Your task to perform on an android device: open device folders in google photos Image 0: 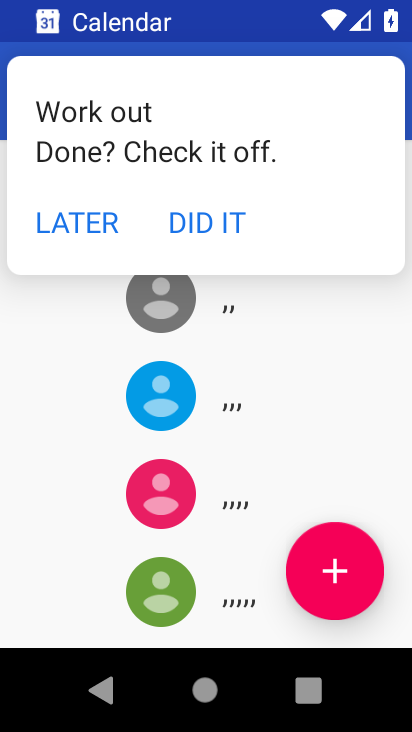
Step 0: press home button
Your task to perform on an android device: open device folders in google photos Image 1: 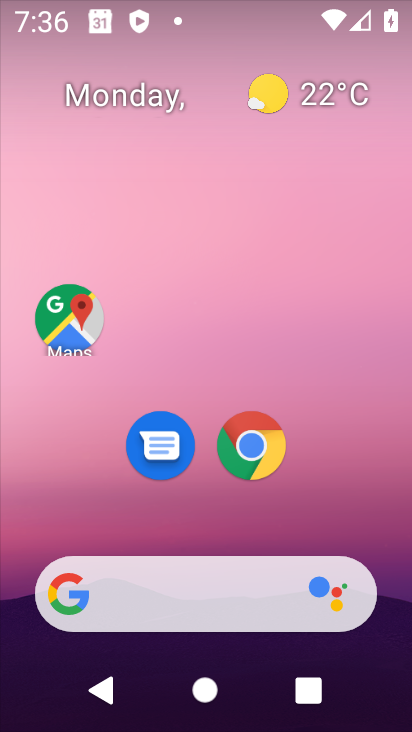
Step 1: drag from (321, 512) to (279, 177)
Your task to perform on an android device: open device folders in google photos Image 2: 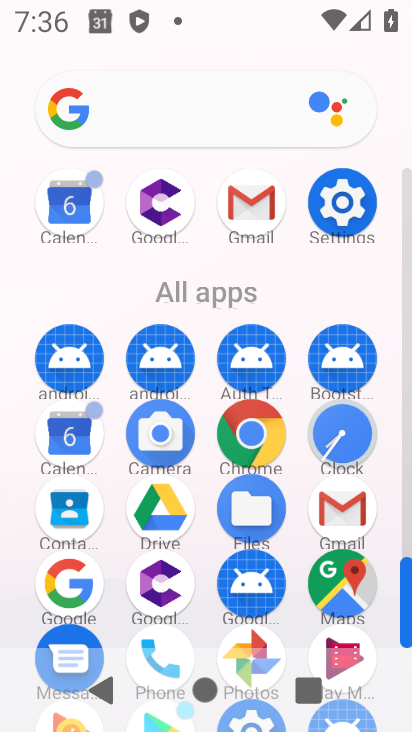
Step 2: drag from (117, 616) to (169, 259)
Your task to perform on an android device: open device folders in google photos Image 3: 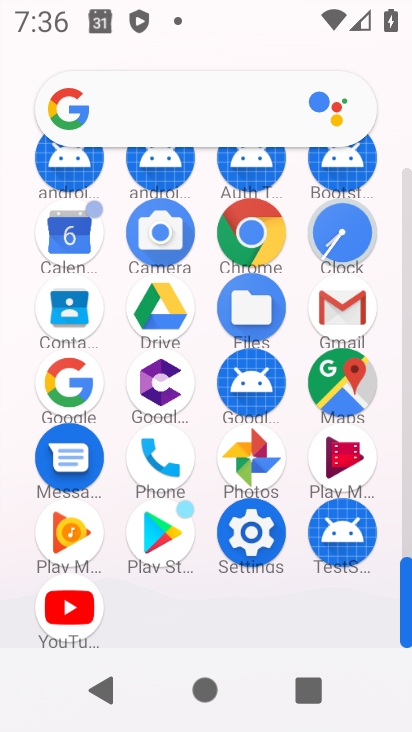
Step 3: click (245, 456)
Your task to perform on an android device: open device folders in google photos Image 4: 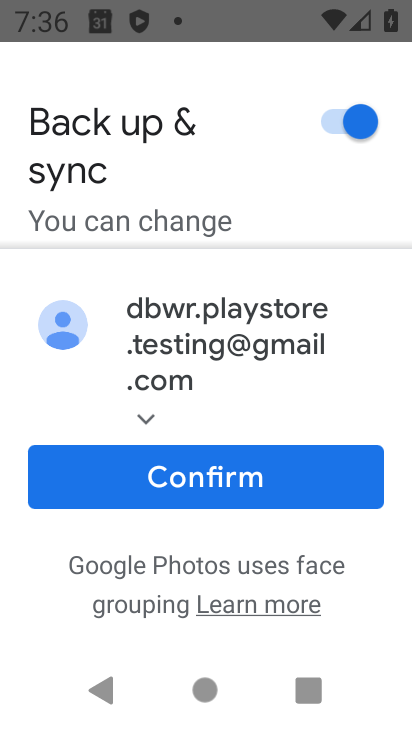
Step 4: click (224, 478)
Your task to perform on an android device: open device folders in google photos Image 5: 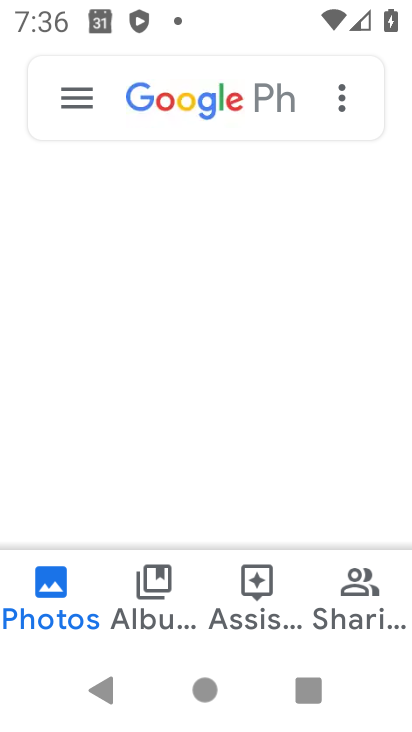
Step 5: click (48, 90)
Your task to perform on an android device: open device folders in google photos Image 6: 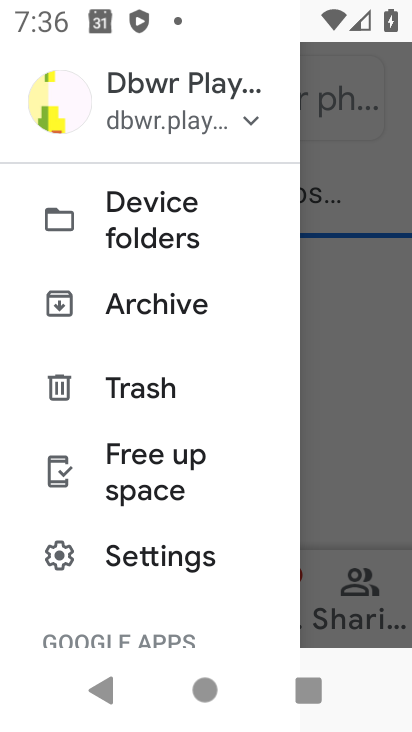
Step 6: click (147, 221)
Your task to perform on an android device: open device folders in google photos Image 7: 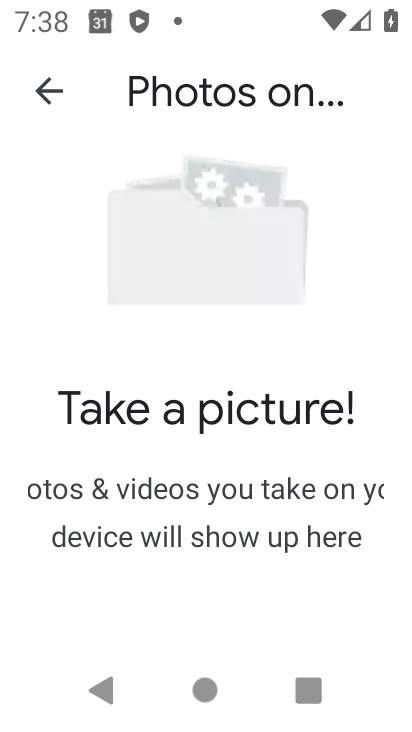
Step 7: task complete